Your task to perform on an android device: Open CNN.com Image 0: 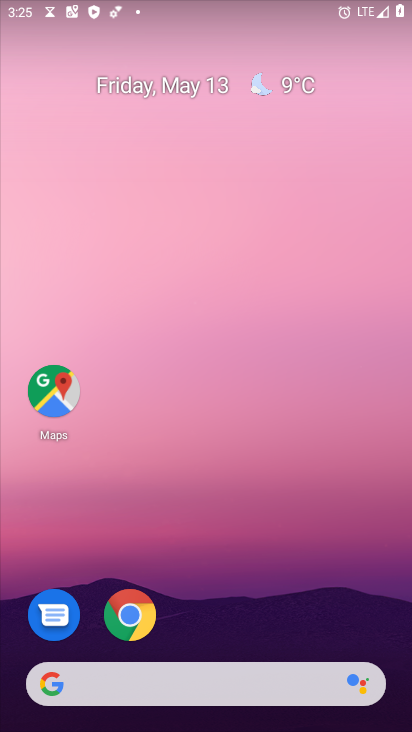
Step 0: click (131, 614)
Your task to perform on an android device: Open CNN.com Image 1: 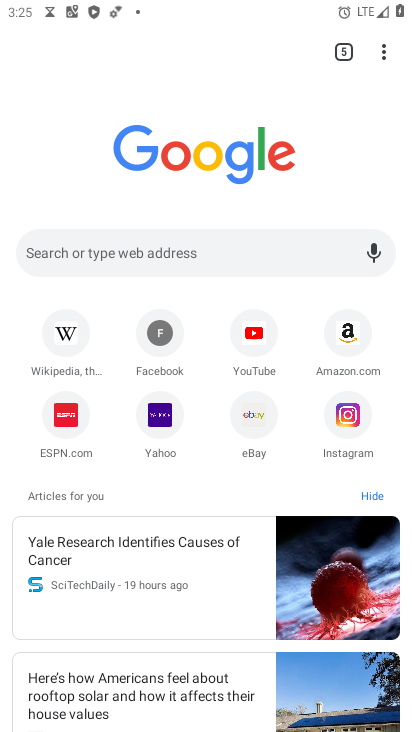
Step 1: click (145, 251)
Your task to perform on an android device: Open CNN.com Image 2: 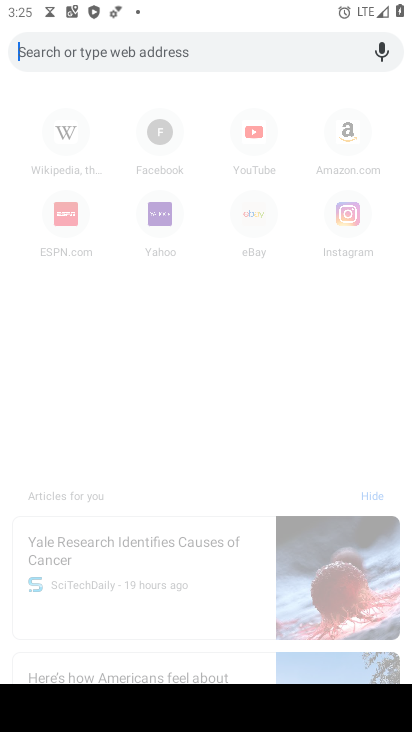
Step 2: type "CNN.com"
Your task to perform on an android device: Open CNN.com Image 3: 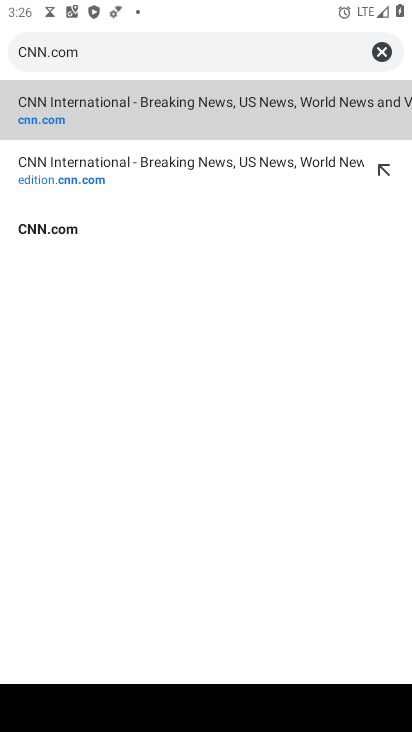
Step 3: click (184, 106)
Your task to perform on an android device: Open CNN.com Image 4: 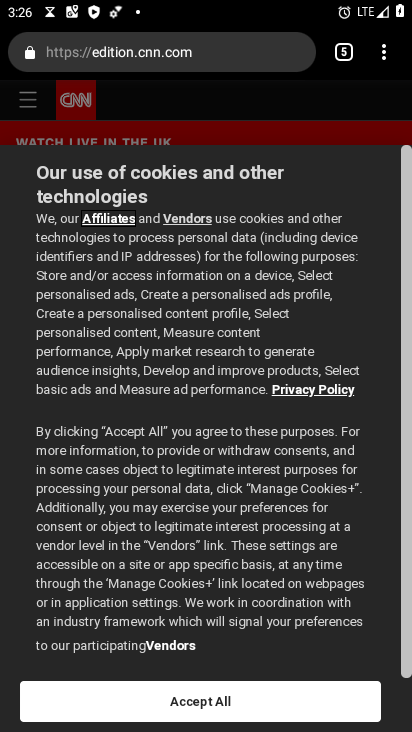
Step 4: task complete